Your task to perform on an android device: open a new tab in the chrome app Image 0: 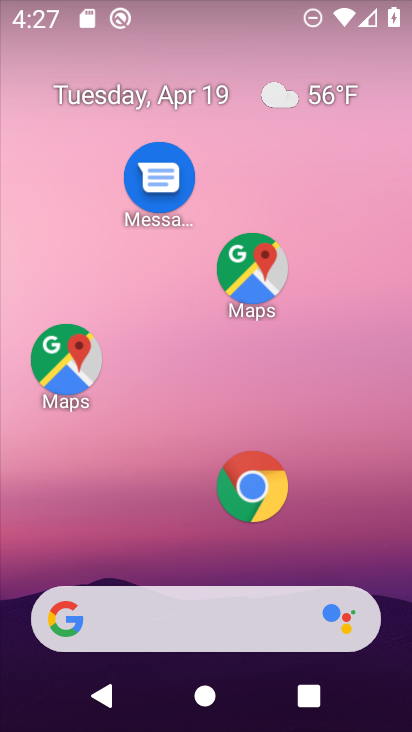
Step 0: click (266, 508)
Your task to perform on an android device: open a new tab in the chrome app Image 1: 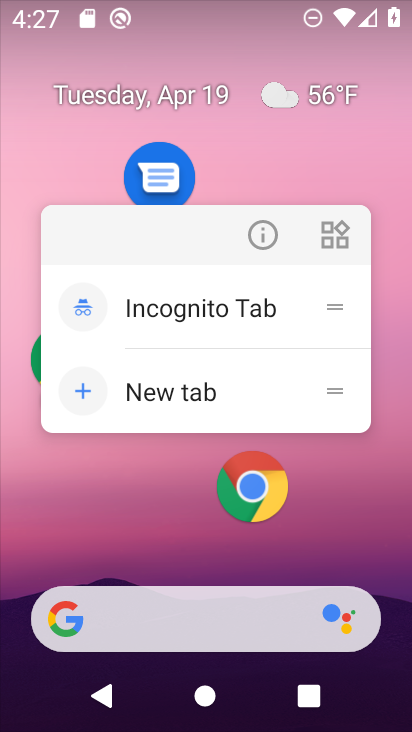
Step 1: click (370, 521)
Your task to perform on an android device: open a new tab in the chrome app Image 2: 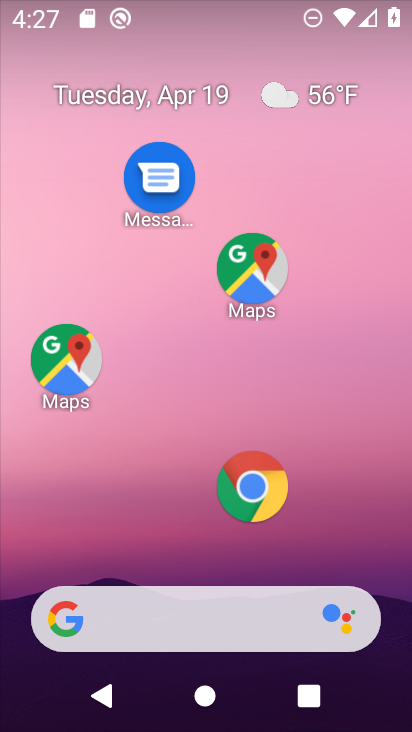
Step 2: click (269, 490)
Your task to perform on an android device: open a new tab in the chrome app Image 3: 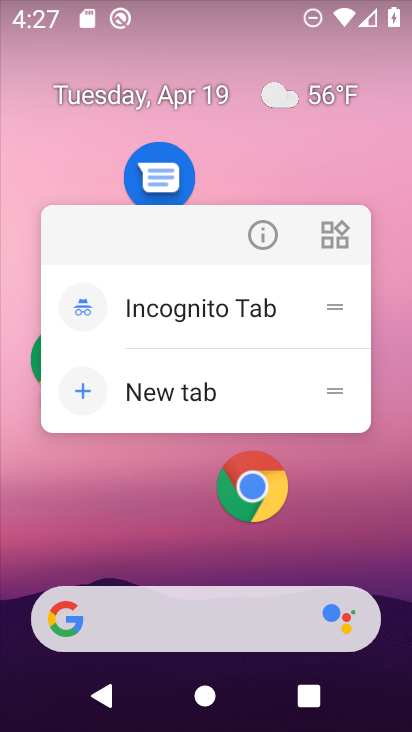
Step 3: click (279, 242)
Your task to perform on an android device: open a new tab in the chrome app Image 4: 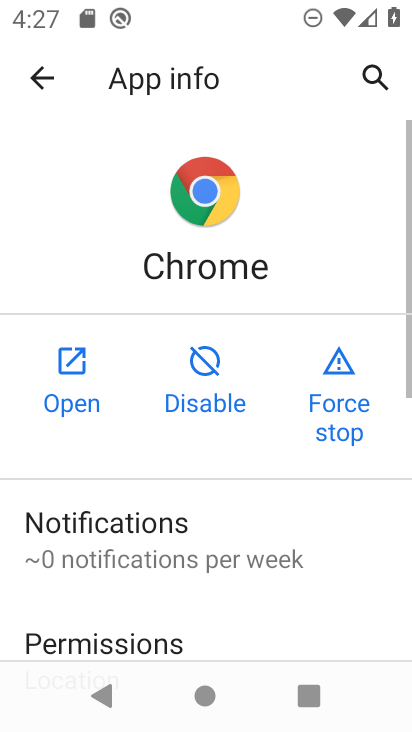
Step 4: click (91, 391)
Your task to perform on an android device: open a new tab in the chrome app Image 5: 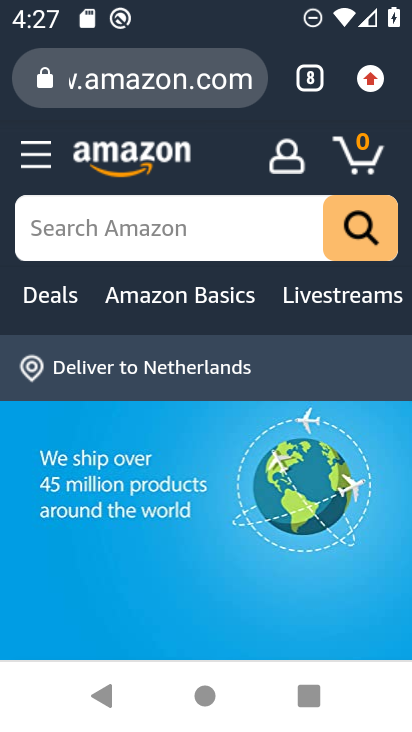
Step 5: click (317, 80)
Your task to perform on an android device: open a new tab in the chrome app Image 6: 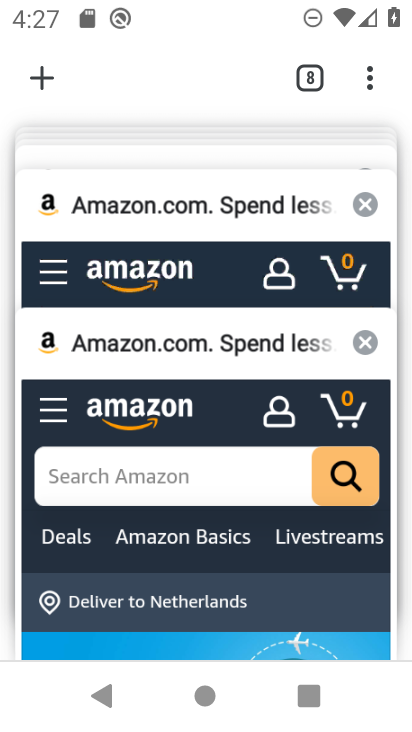
Step 6: click (53, 90)
Your task to perform on an android device: open a new tab in the chrome app Image 7: 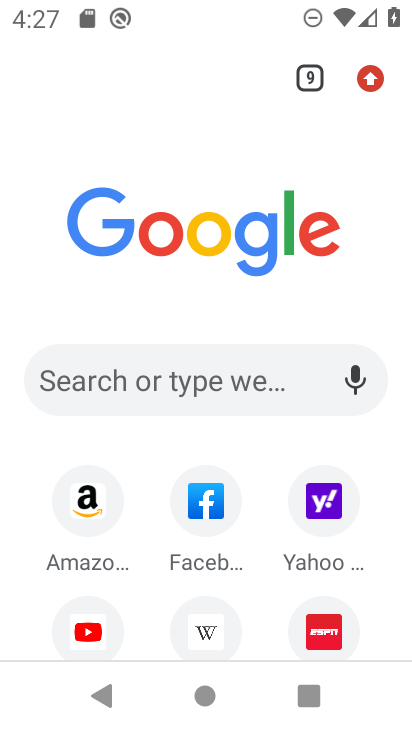
Step 7: task complete